Your task to perform on an android device: Go to Yahoo.com Image 0: 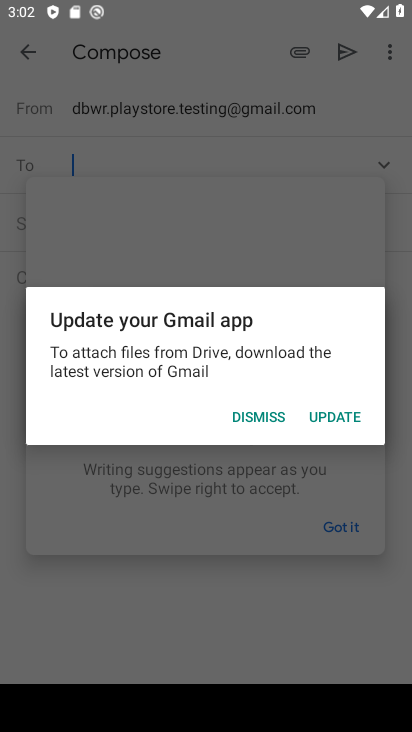
Step 0: press home button
Your task to perform on an android device: Go to Yahoo.com Image 1: 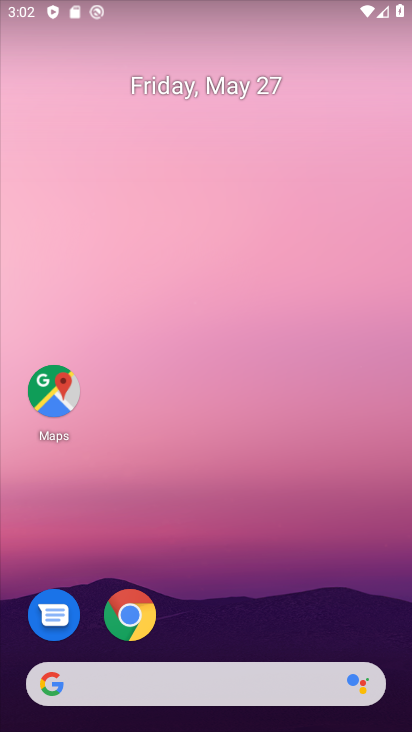
Step 1: click (143, 613)
Your task to perform on an android device: Go to Yahoo.com Image 2: 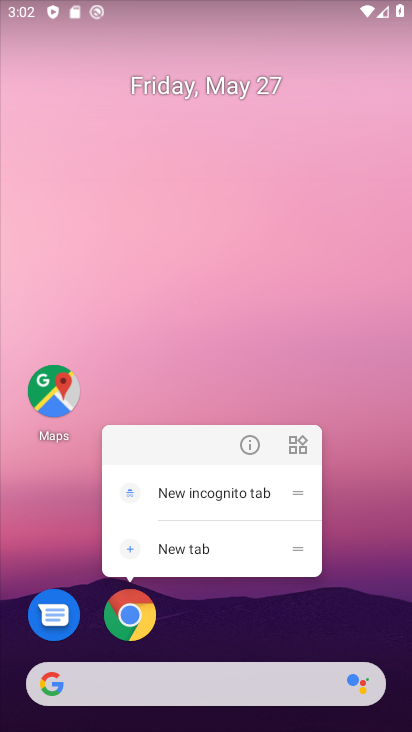
Step 2: click (138, 609)
Your task to perform on an android device: Go to Yahoo.com Image 3: 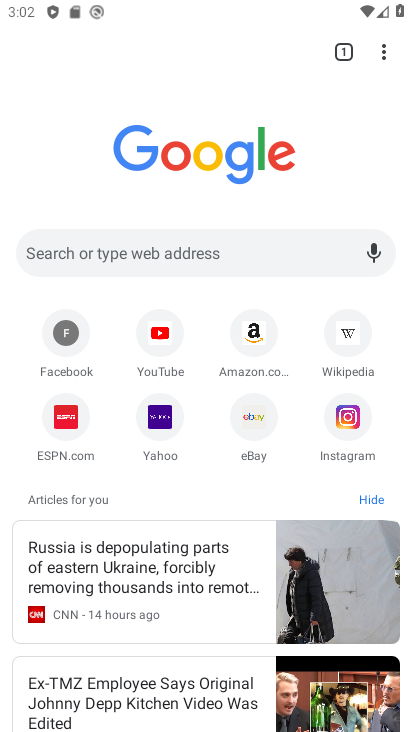
Step 3: click (159, 432)
Your task to perform on an android device: Go to Yahoo.com Image 4: 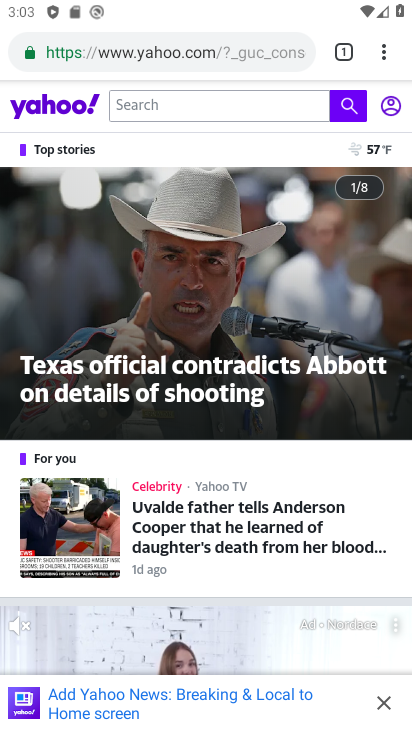
Step 4: task complete